Your task to perform on an android device: Go to settings Image 0: 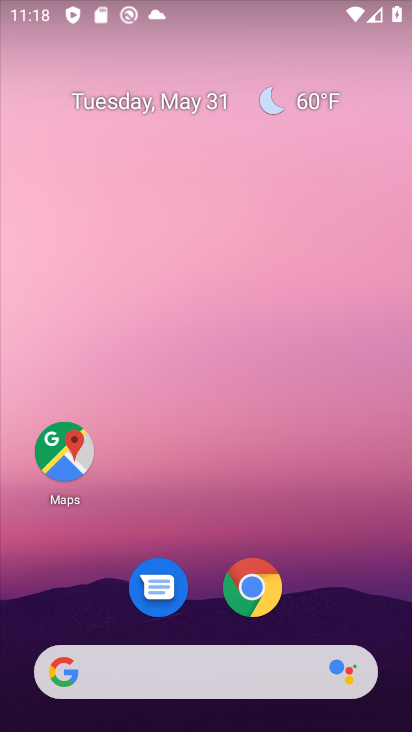
Step 0: drag from (53, 605) to (169, 102)
Your task to perform on an android device: Go to settings Image 1: 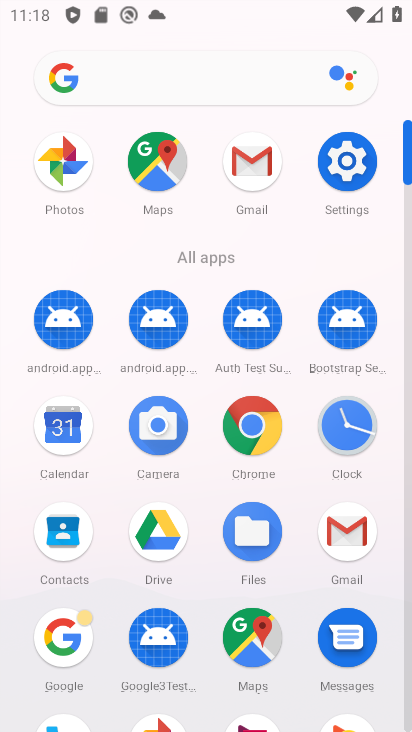
Step 1: drag from (179, 564) to (238, 278)
Your task to perform on an android device: Go to settings Image 2: 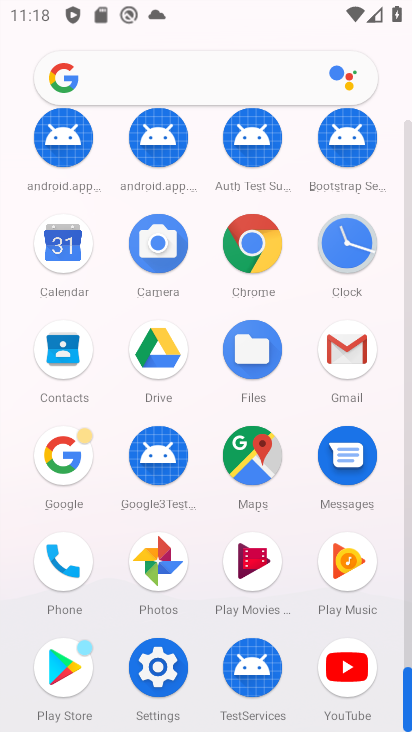
Step 2: click (154, 679)
Your task to perform on an android device: Go to settings Image 3: 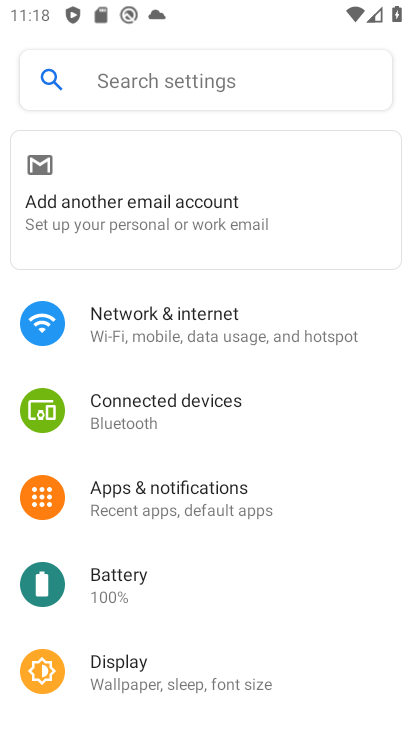
Step 3: task complete